Your task to perform on an android device: open wifi settings Image 0: 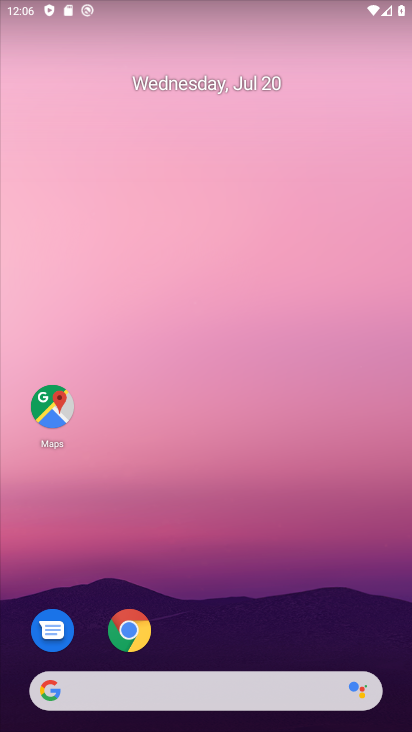
Step 0: drag from (231, 598) to (182, 13)
Your task to perform on an android device: open wifi settings Image 1: 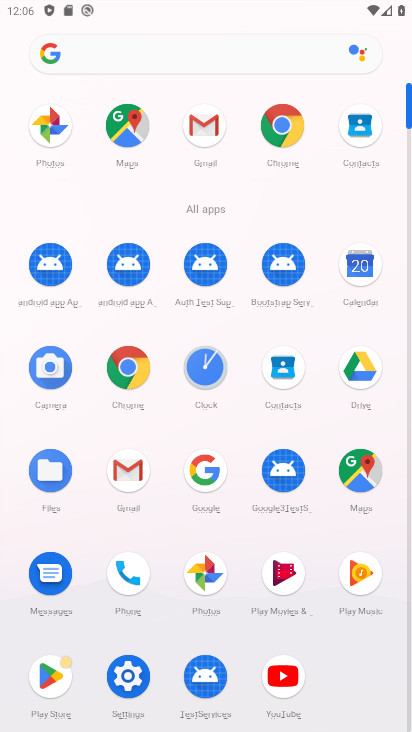
Step 1: click (116, 675)
Your task to perform on an android device: open wifi settings Image 2: 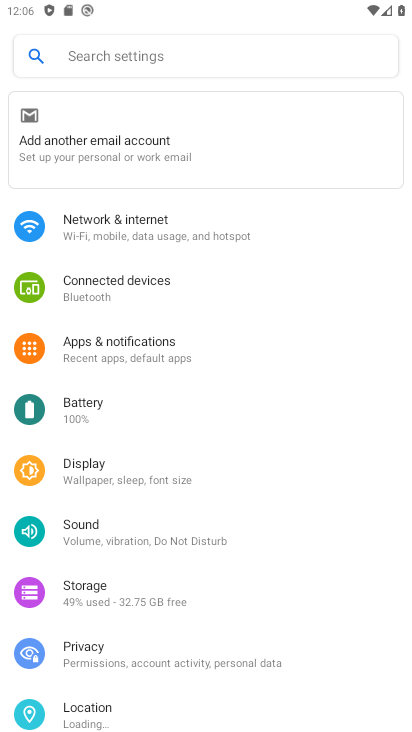
Step 2: click (121, 229)
Your task to perform on an android device: open wifi settings Image 3: 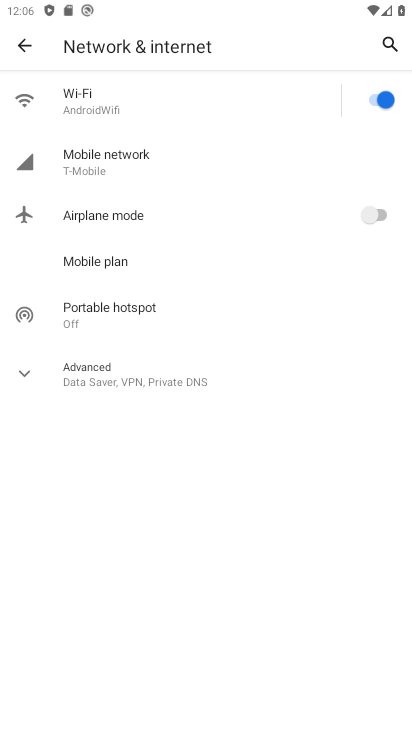
Step 3: click (107, 114)
Your task to perform on an android device: open wifi settings Image 4: 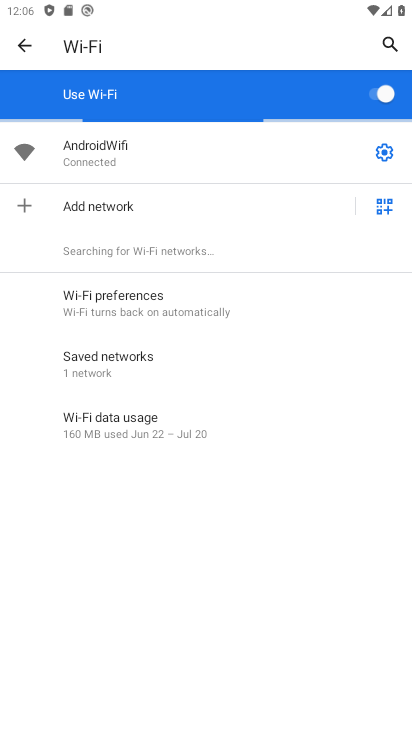
Step 4: task complete